Your task to perform on an android device: Go to ESPN.com Image 0: 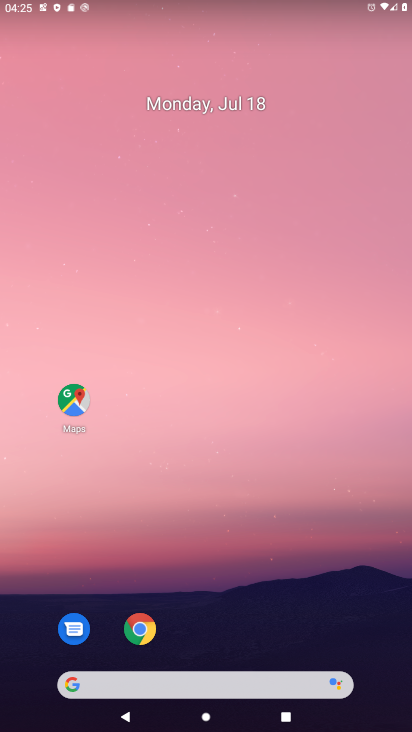
Step 0: click (139, 636)
Your task to perform on an android device: Go to ESPN.com Image 1: 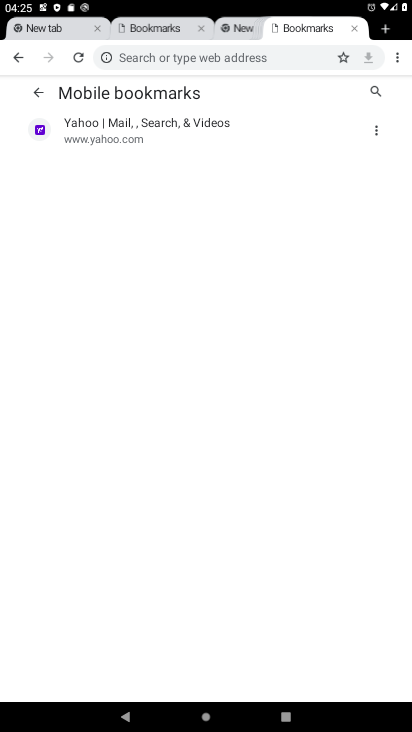
Step 1: click (22, 55)
Your task to perform on an android device: Go to ESPN.com Image 2: 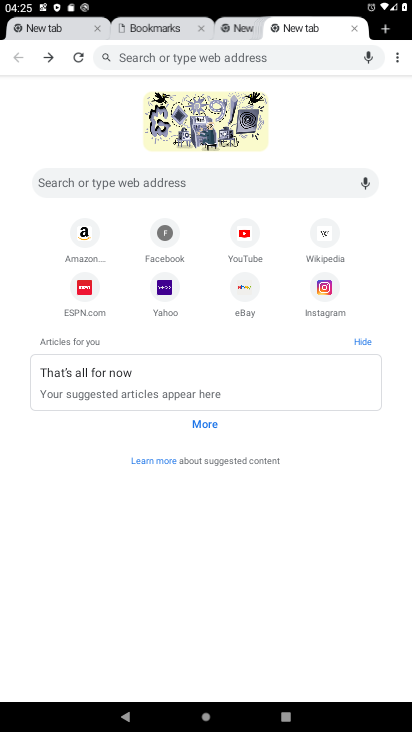
Step 2: click (160, 177)
Your task to perform on an android device: Go to ESPN.com Image 3: 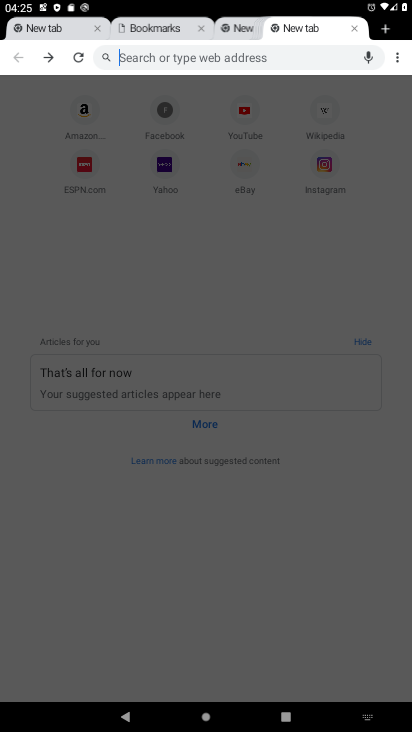
Step 3: click (182, 60)
Your task to perform on an android device: Go to ESPN.com Image 4: 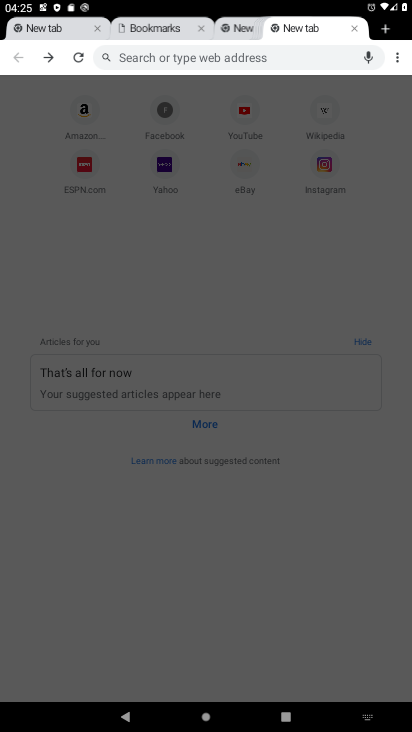
Step 4: type "ESPN.com"
Your task to perform on an android device: Go to ESPN.com Image 5: 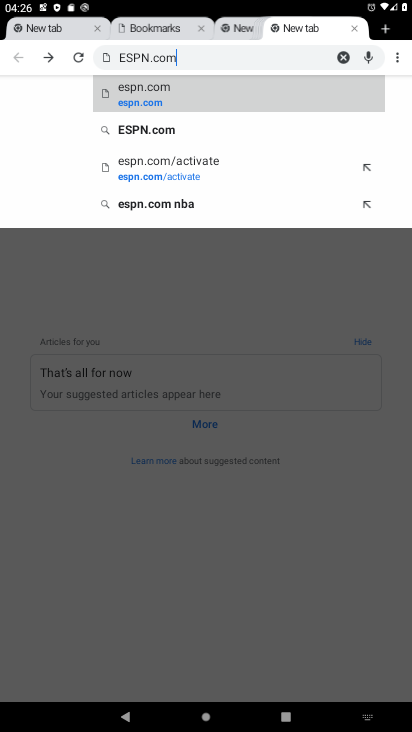
Step 5: click (139, 125)
Your task to perform on an android device: Go to ESPN.com Image 6: 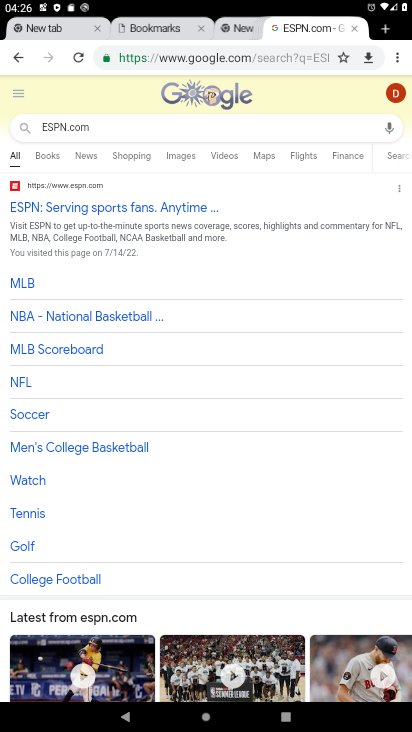
Step 6: task complete